Your task to perform on an android device: open app "Indeed Job Search" Image 0: 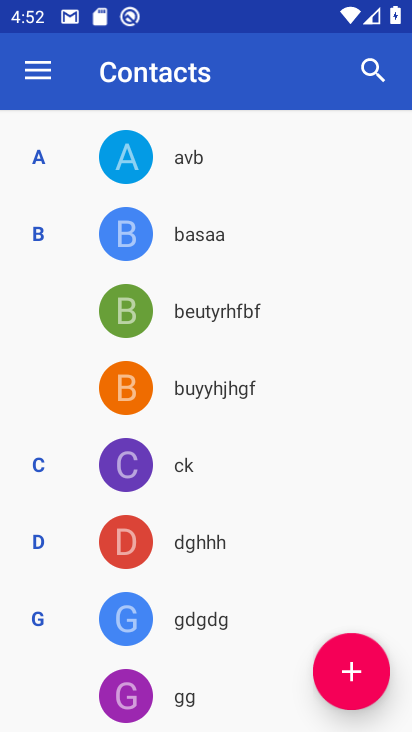
Step 0: press home button
Your task to perform on an android device: open app "Indeed Job Search" Image 1: 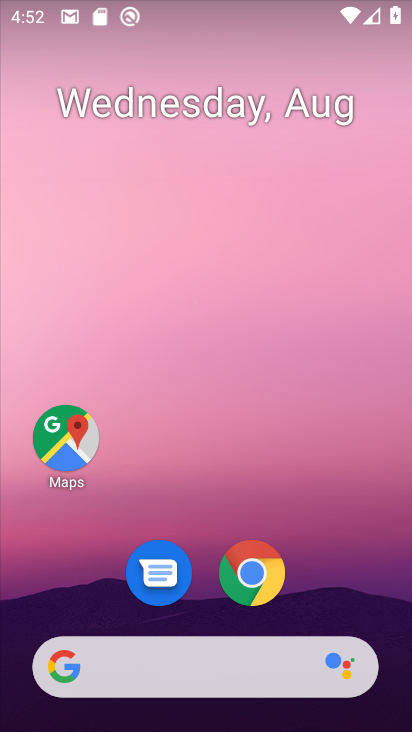
Step 1: drag from (201, 609) to (331, 0)
Your task to perform on an android device: open app "Indeed Job Search" Image 2: 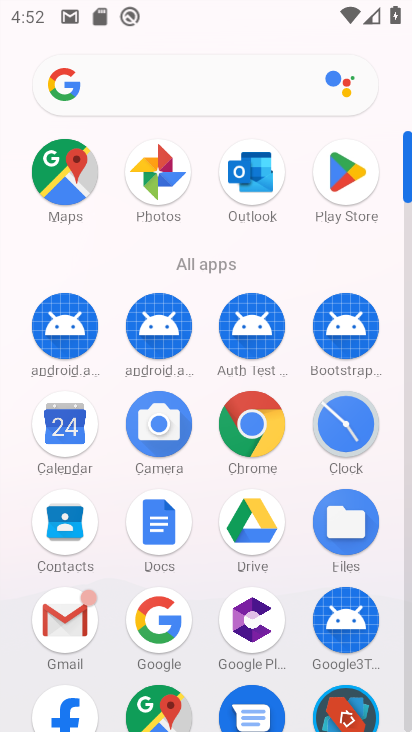
Step 2: click (353, 185)
Your task to perform on an android device: open app "Indeed Job Search" Image 3: 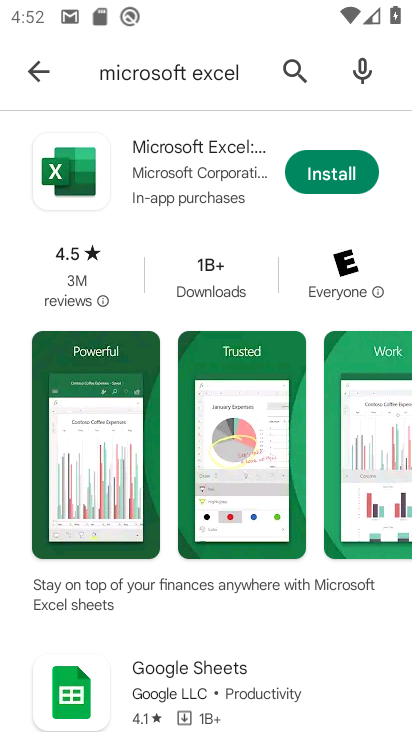
Step 3: click (47, 74)
Your task to perform on an android device: open app "Indeed Job Search" Image 4: 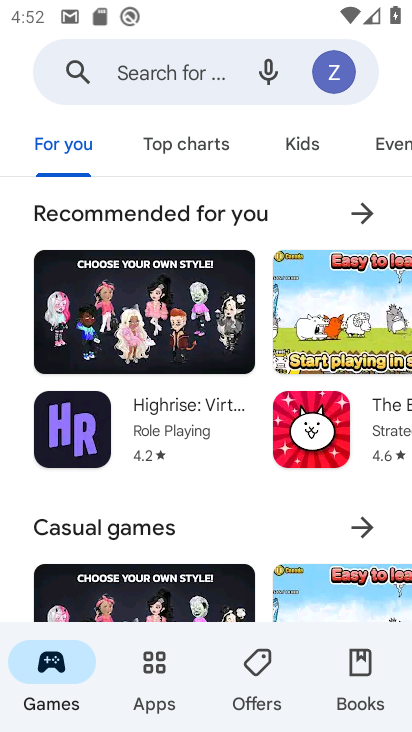
Step 4: type "Indeed Job Search"
Your task to perform on an android device: open app "Indeed Job Search" Image 5: 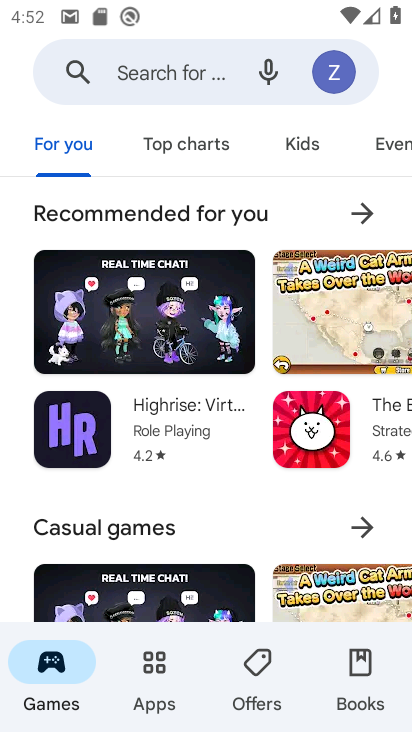
Step 5: click (152, 78)
Your task to perform on an android device: open app "Indeed Job Search" Image 6: 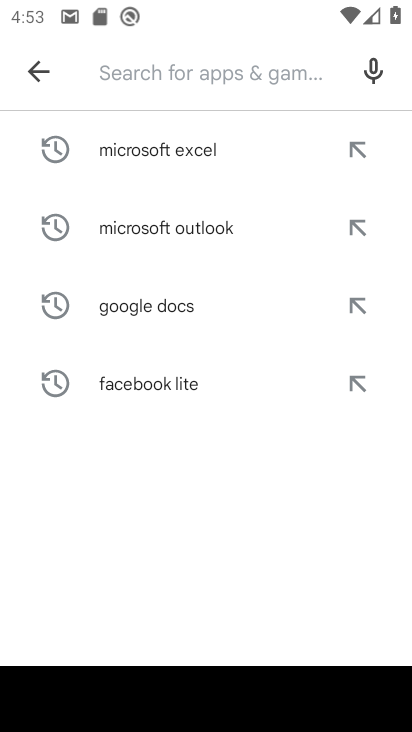
Step 6: type "Indeed Job Search"
Your task to perform on an android device: open app "Indeed Job Search" Image 7: 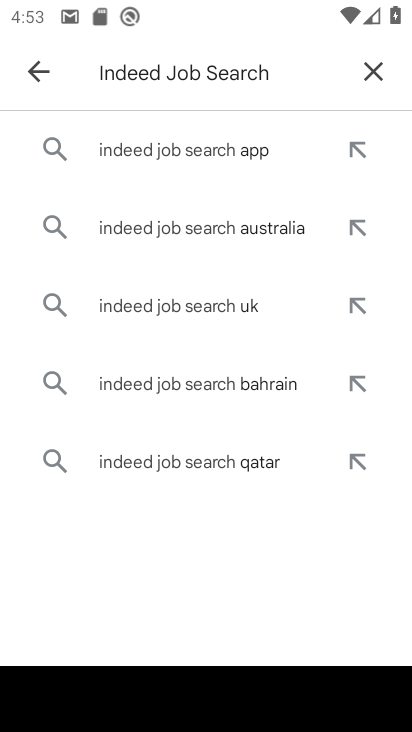
Step 7: click (213, 151)
Your task to perform on an android device: open app "Indeed Job Search" Image 8: 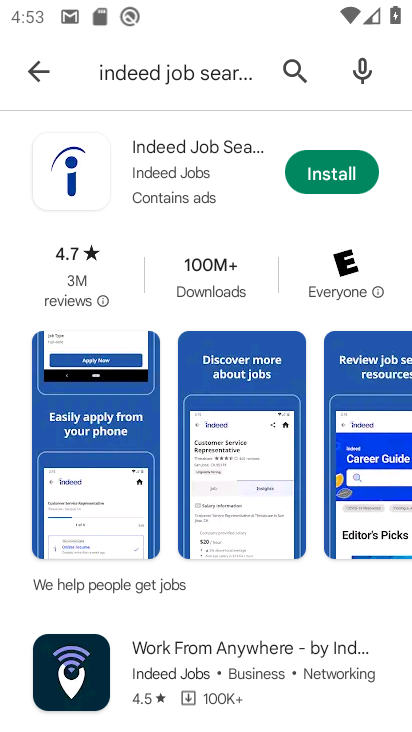
Step 8: click (322, 169)
Your task to perform on an android device: open app "Indeed Job Search" Image 9: 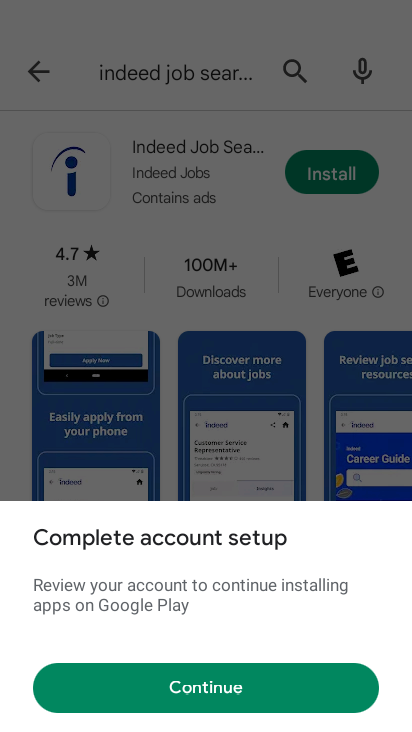
Step 9: click (209, 706)
Your task to perform on an android device: open app "Indeed Job Search" Image 10: 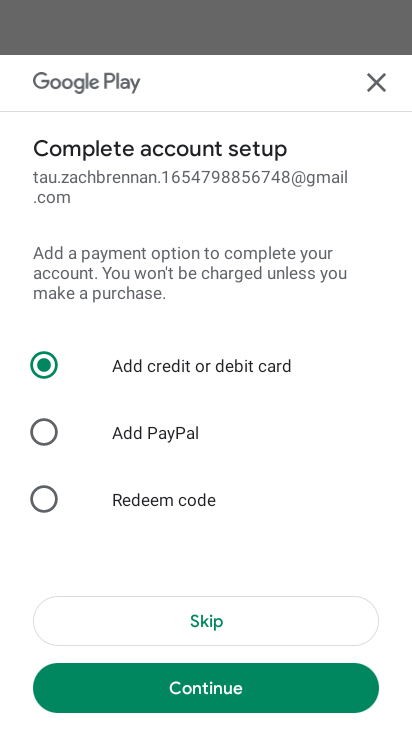
Step 10: click (209, 616)
Your task to perform on an android device: open app "Indeed Job Search" Image 11: 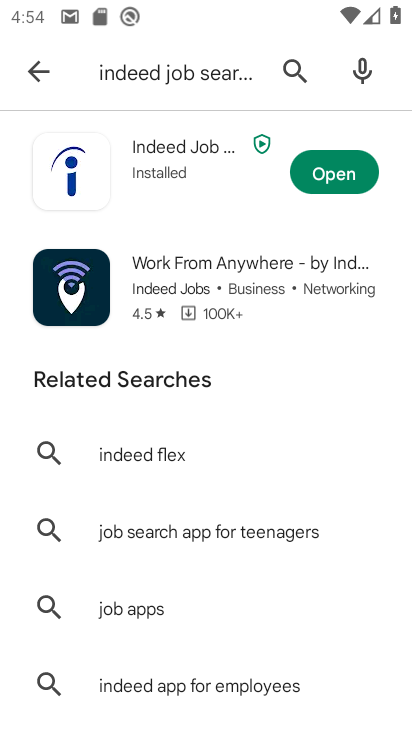
Step 11: click (338, 174)
Your task to perform on an android device: open app "Indeed Job Search" Image 12: 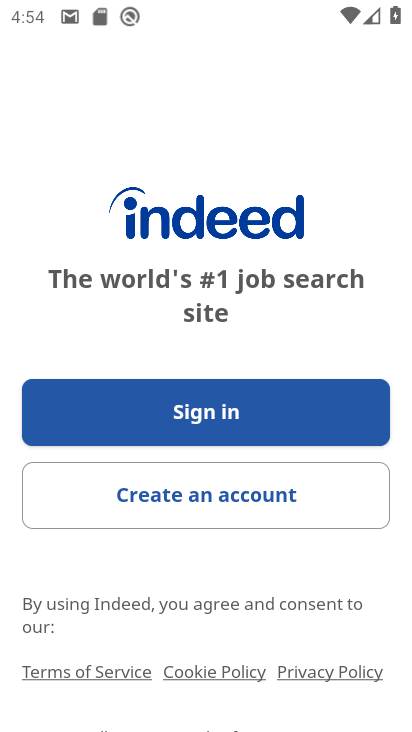
Step 12: task complete